Your task to perform on an android device: Check the weather Image 0: 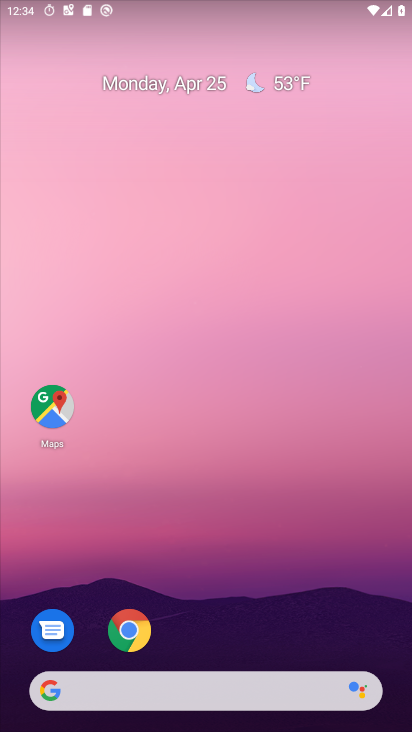
Step 0: drag from (187, 601) to (193, 229)
Your task to perform on an android device: Check the weather Image 1: 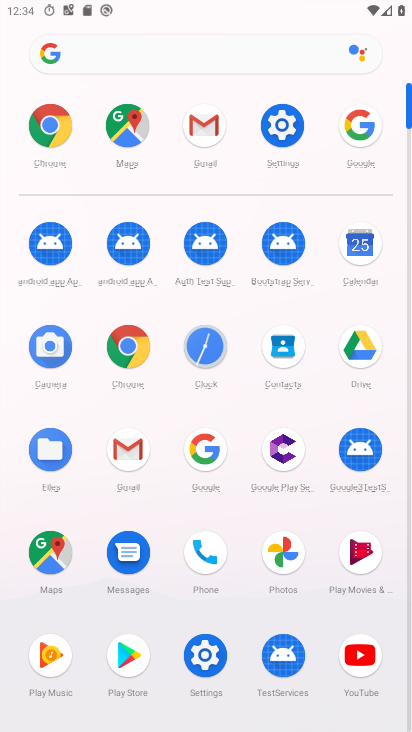
Step 1: click (199, 444)
Your task to perform on an android device: Check the weather Image 2: 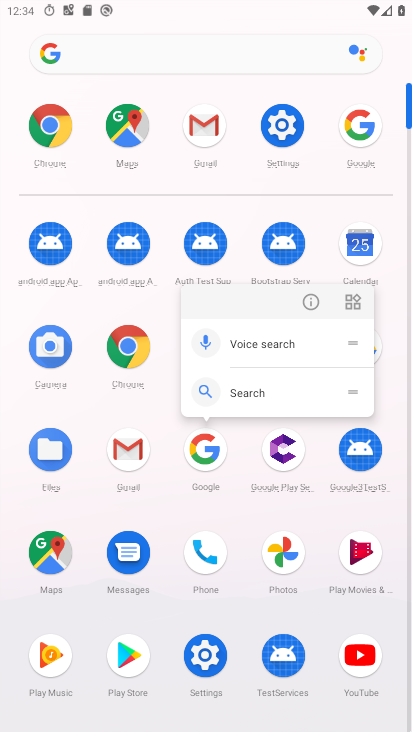
Step 2: click (313, 301)
Your task to perform on an android device: Check the weather Image 3: 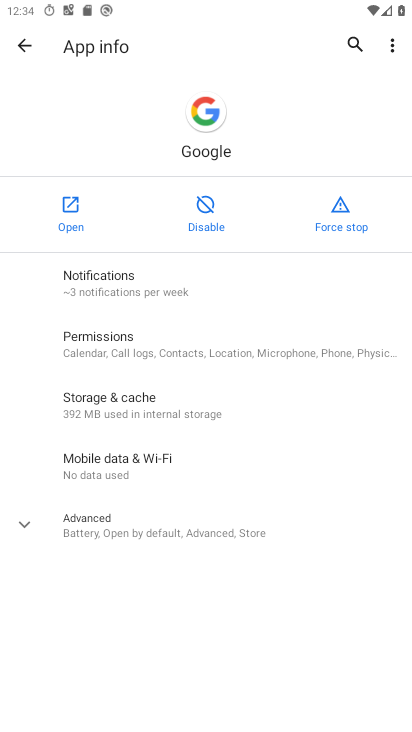
Step 3: click (78, 214)
Your task to perform on an android device: Check the weather Image 4: 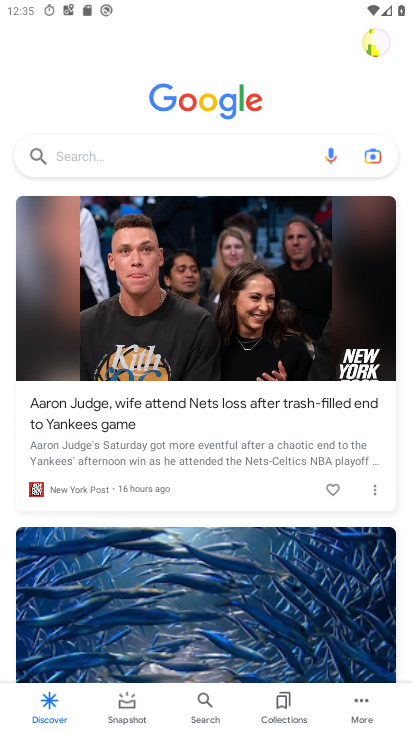
Step 4: click (382, 46)
Your task to perform on an android device: Check the weather Image 5: 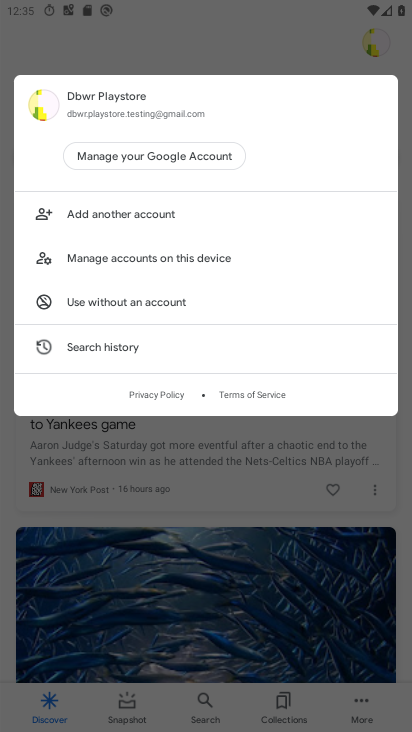
Step 5: drag from (229, 582) to (235, 621)
Your task to perform on an android device: Check the weather Image 6: 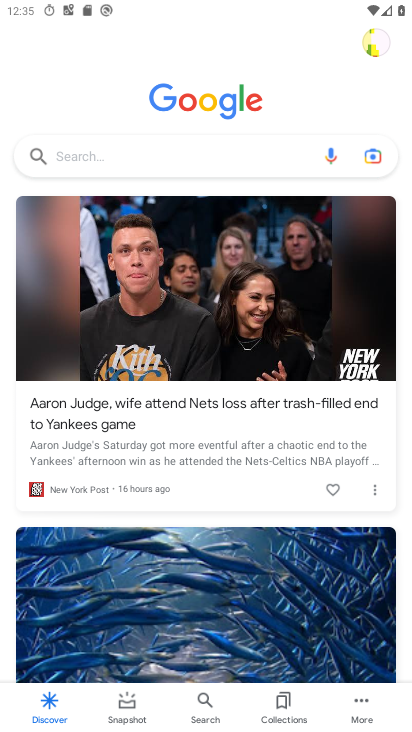
Step 6: click (218, 151)
Your task to perform on an android device: Check the weather Image 7: 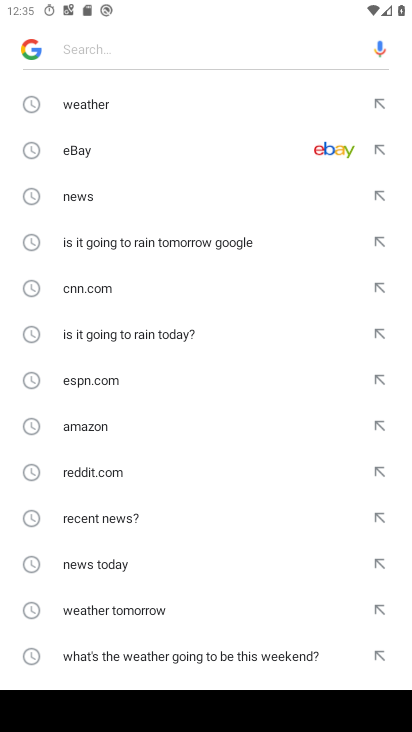
Step 7: click (133, 99)
Your task to perform on an android device: Check the weather Image 8: 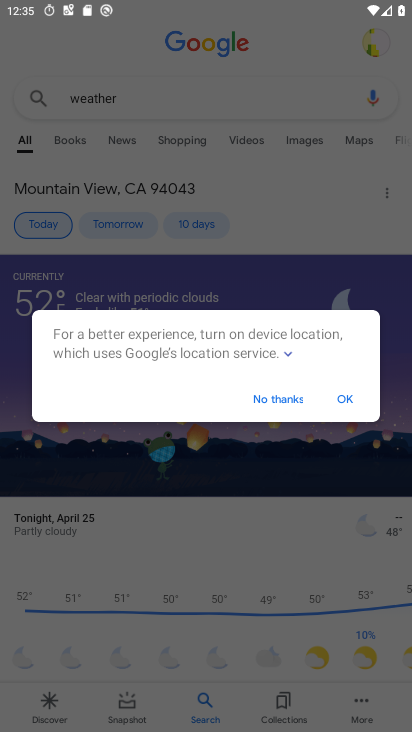
Step 8: click (353, 400)
Your task to perform on an android device: Check the weather Image 9: 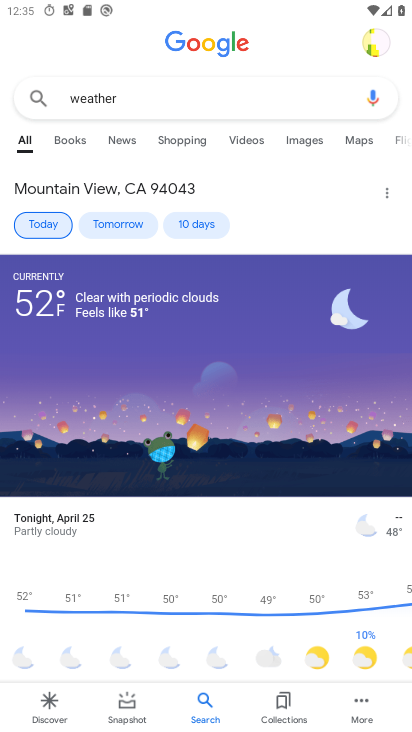
Step 9: task complete